Your task to perform on an android device: What's the news in Ecuador? Image 0: 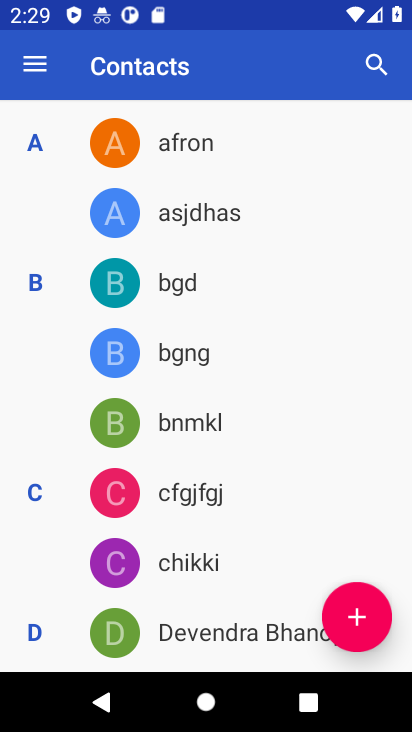
Step 0: press home button
Your task to perform on an android device: What's the news in Ecuador? Image 1: 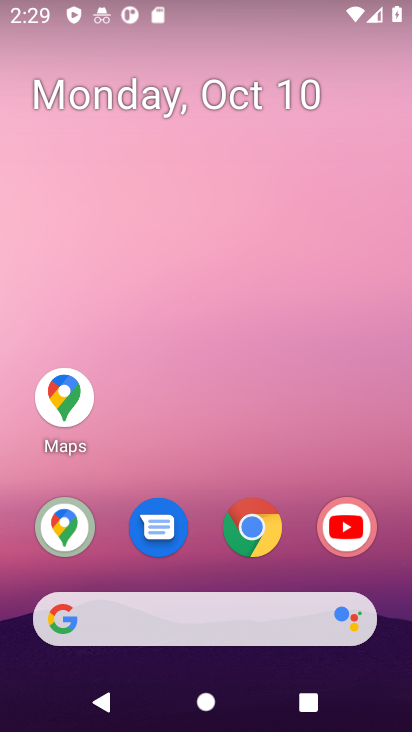
Step 1: click (253, 531)
Your task to perform on an android device: What's the news in Ecuador? Image 2: 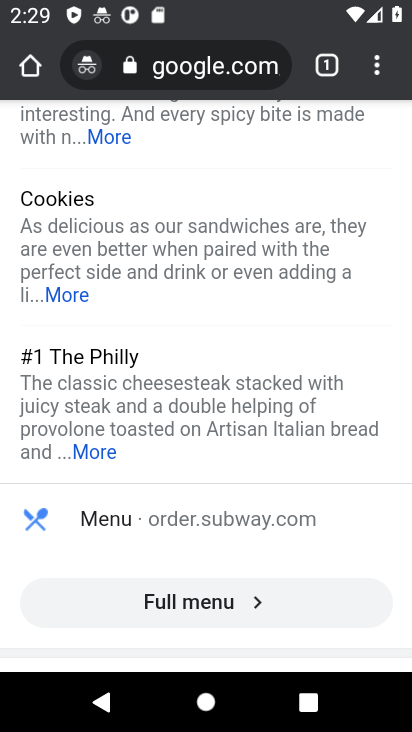
Step 2: click (249, 66)
Your task to perform on an android device: What's the news in Ecuador? Image 3: 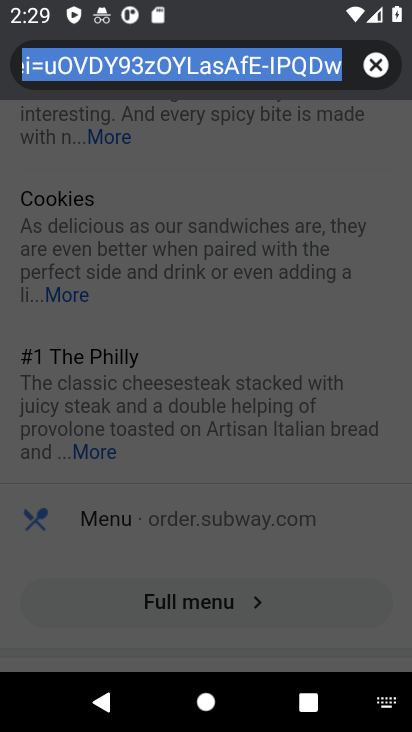
Step 3: click (380, 68)
Your task to perform on an android device: What's the news in Ecuador? Image 4: 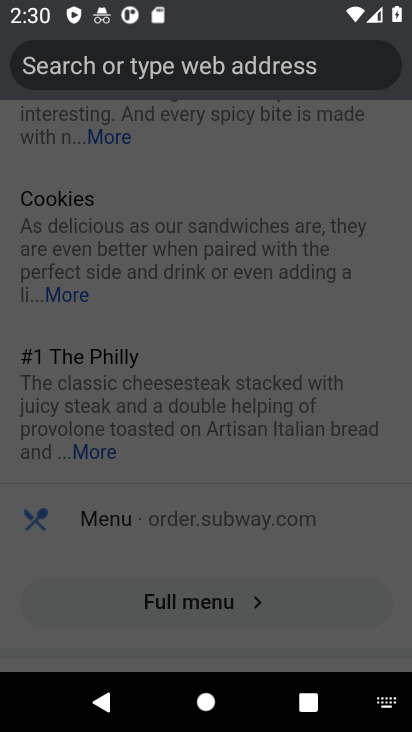
Step 4: type "What's the news in Ecuador"
Your task to perform on an android device: What's the news in Ecuador? Image 5: 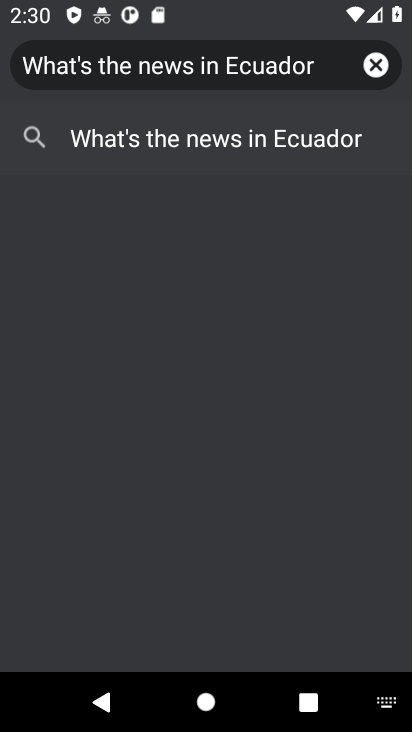
Step 5: click (309, 139)
Your task to perform on an android device: What's the news in Ecuador? Image 6: 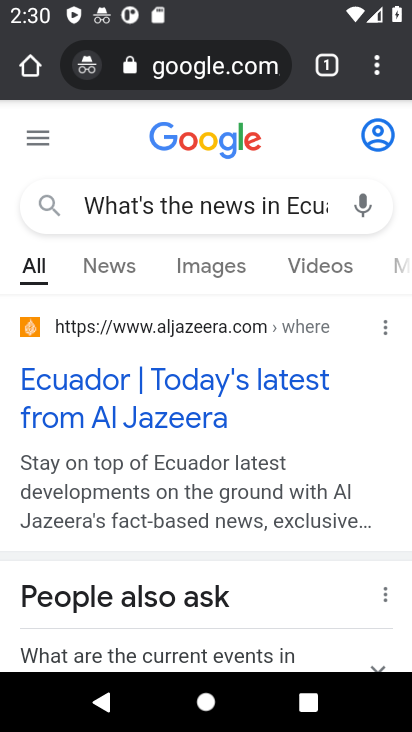
Step 6: click (186, 418)
Your task to perform on an android device: What's the news in Ecuador? Image 7: 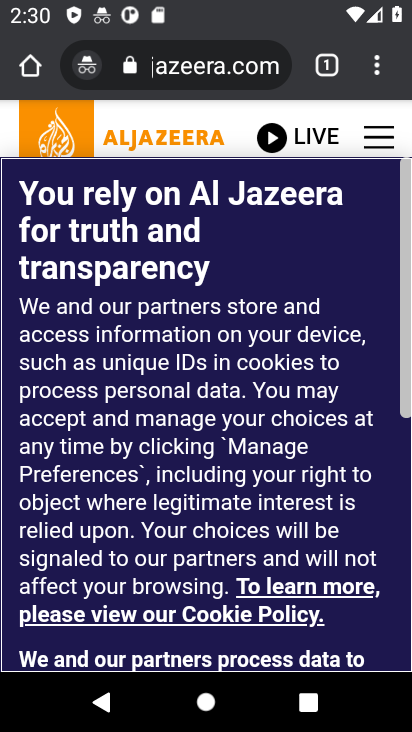
Step 7: drag from (275, 587) to (297, 358)
Your task to perform on an android device: What's the news in Ecuador? Image 8: 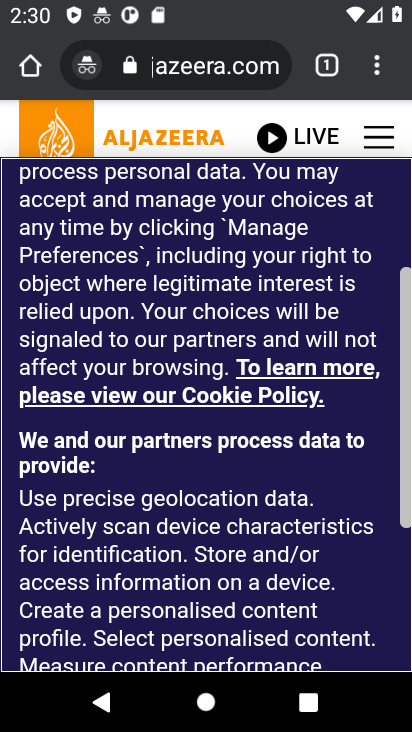
Step 8: drag from (267, 568) to (273, 347)
Your task to perform on an android device: What's the news in Ecuador? Image 9: 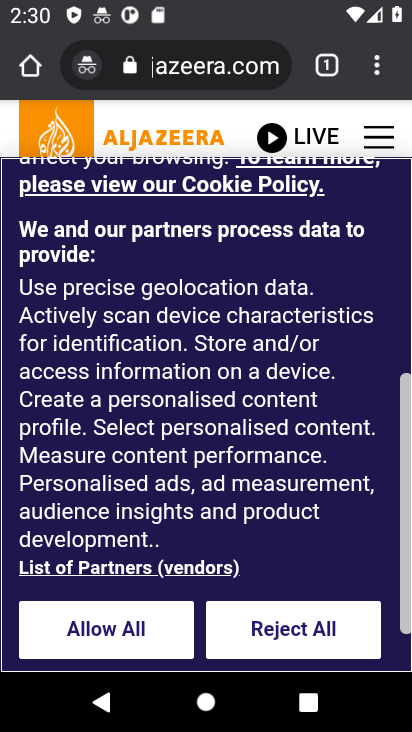
Step 9: click (121, 632)
Your task to perform on an android device: What's the news in Ecuador? Image 10: 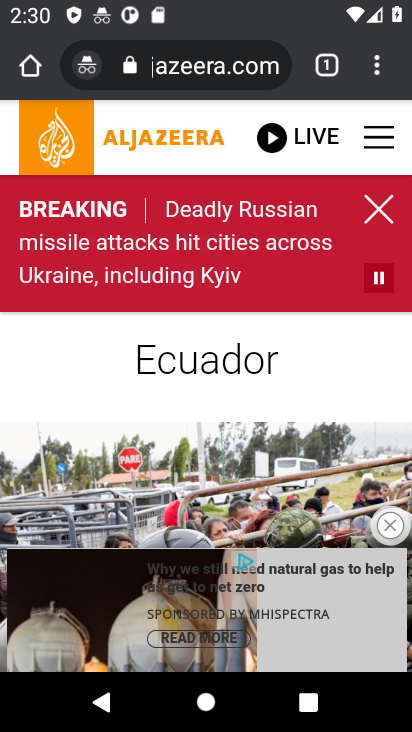
Step 10: task complete